Your task to perform on an android device: show emergency info Image 0: 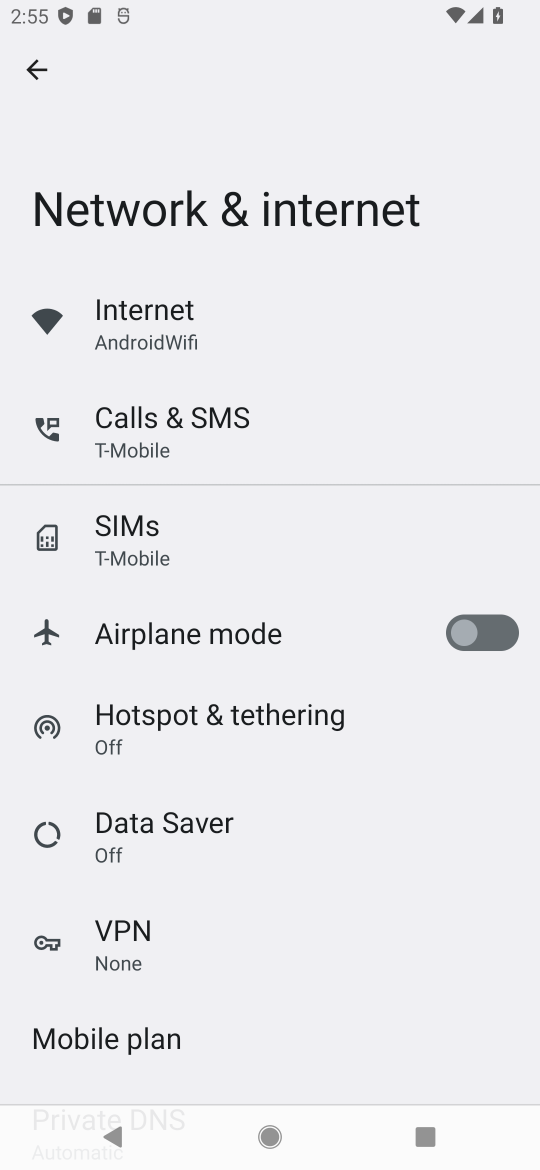
Step 0: click (9, 64)
Your task to perform on an android device: show emergency info Image 1: 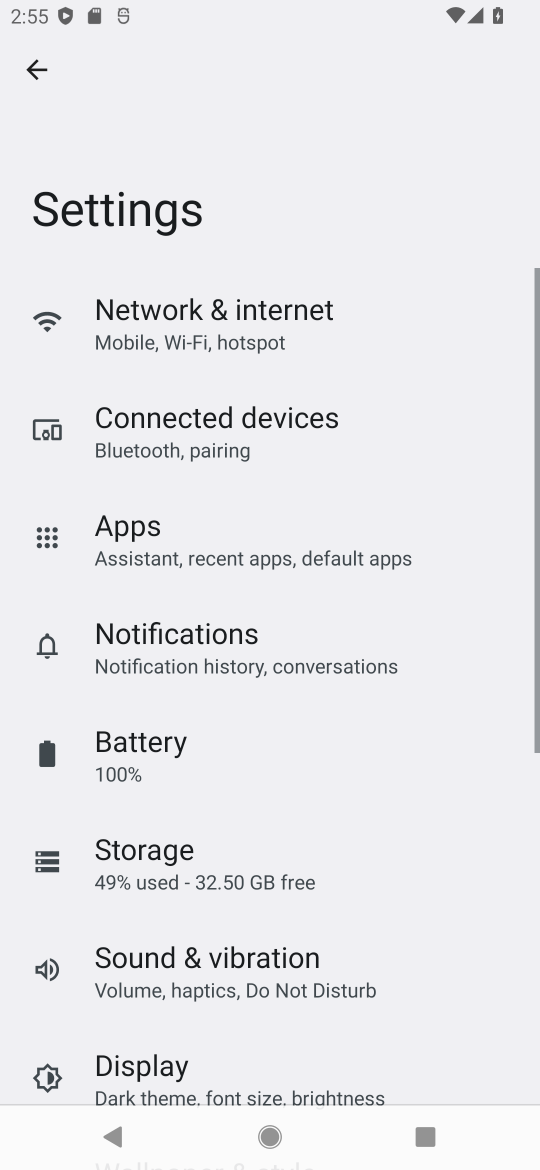
Step 1: press back button
Your task to perform on an android device: show emergency info Image 2: 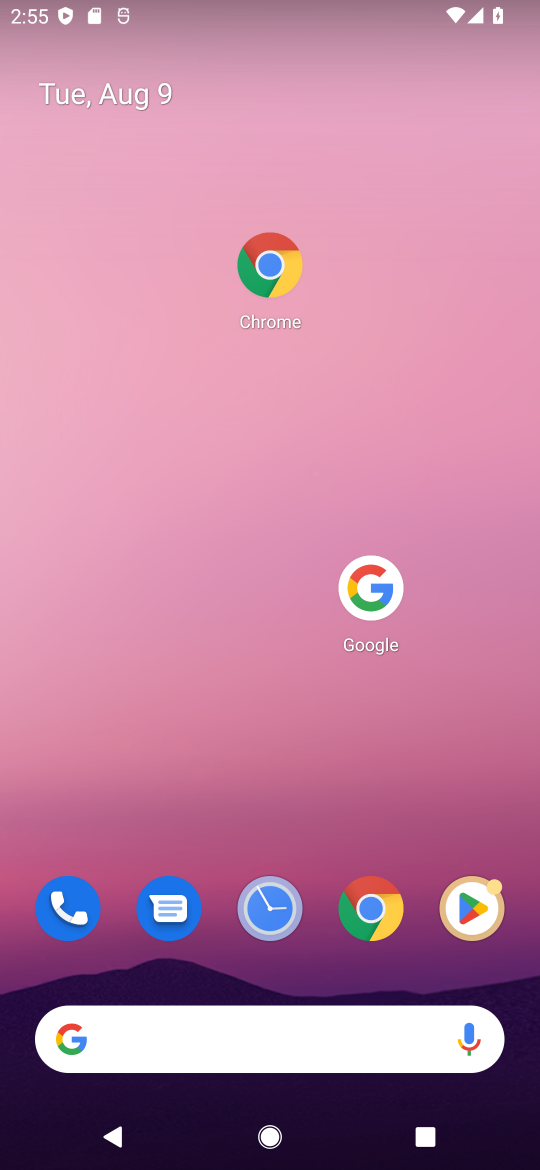
Step 2: drag from (331, 807) to (313, 464)
Your task to perform on an android device: show emergency info Image 3: 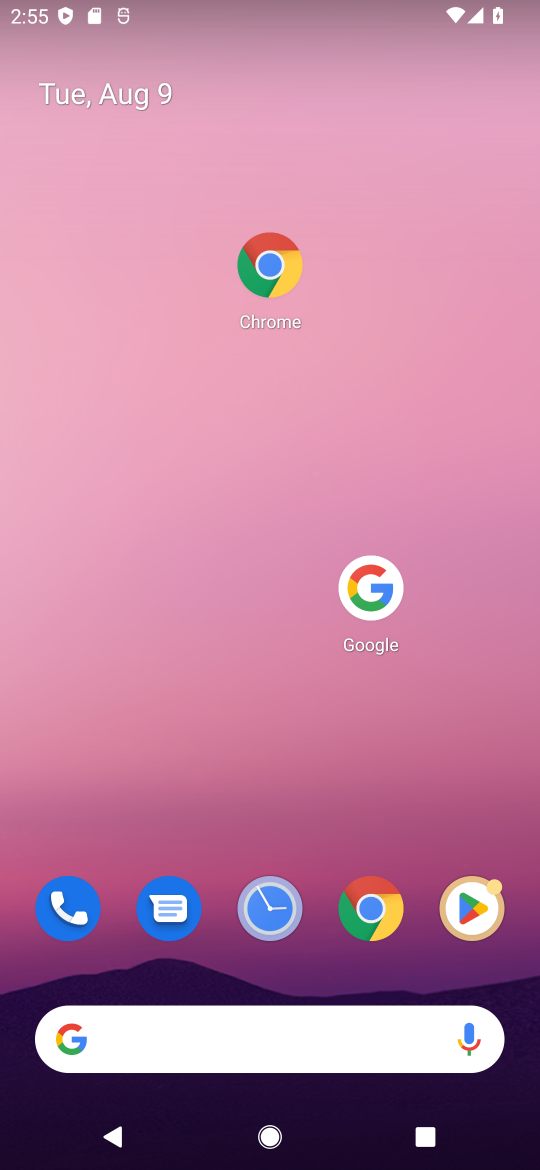
Step 3: drag from (311, 978) to (286, 360)
Your task to perform on an android device: show emergency info Image 4: 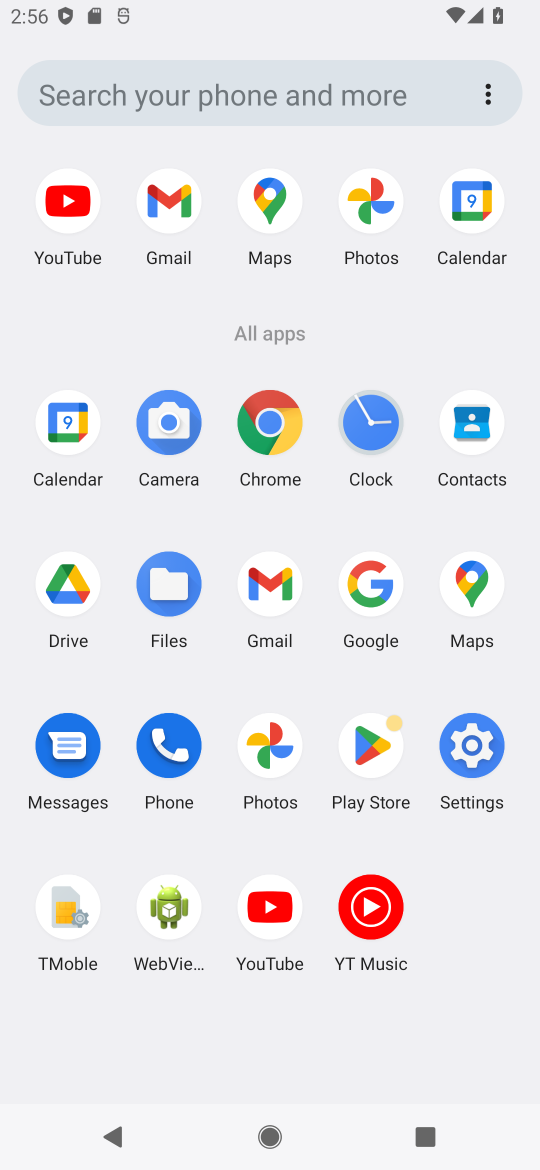
Step 4: drag from (309, 992) to (367, 496)
Your task to perform on an android device: show emergency info Image 5: 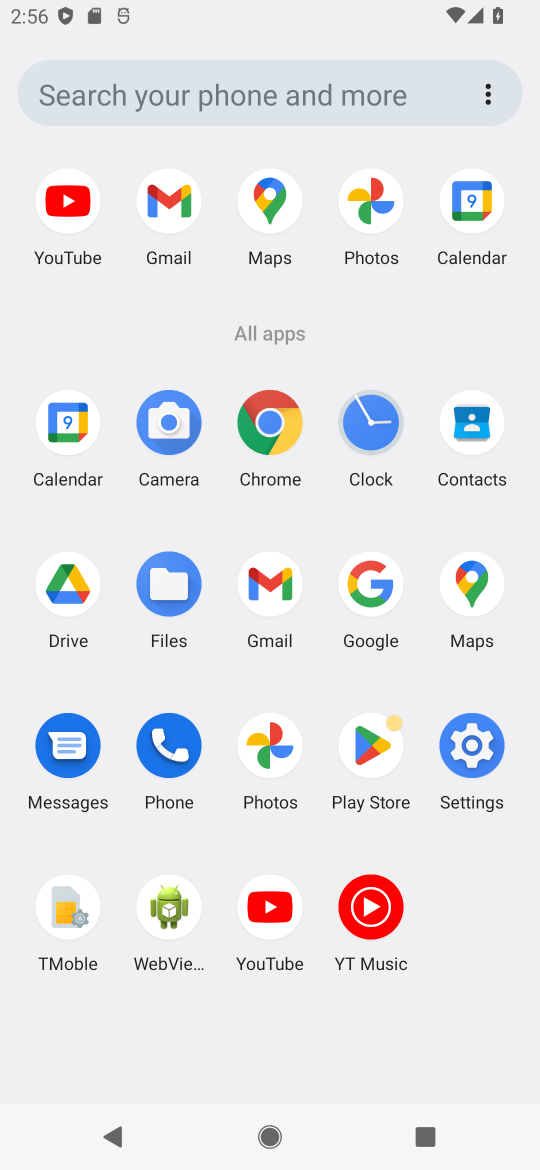
Step 5: drag from (354, 866) to (333, 454)
Your task to perform on an android device: show emergency info Image 6: 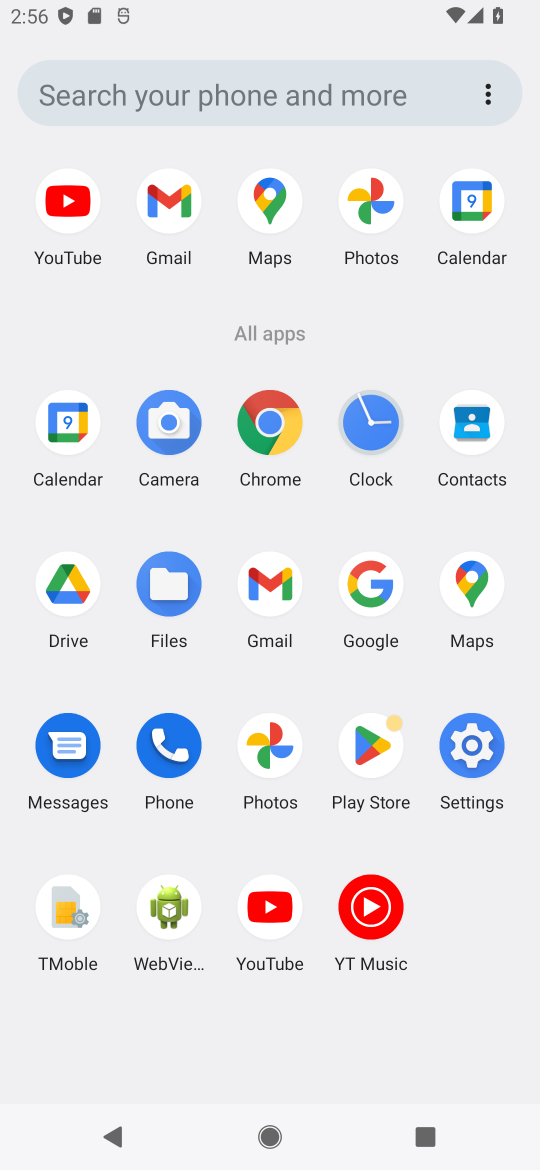
Step 6: click (466, 750)
Your task to perform on an android device: show emergency info Image 7: 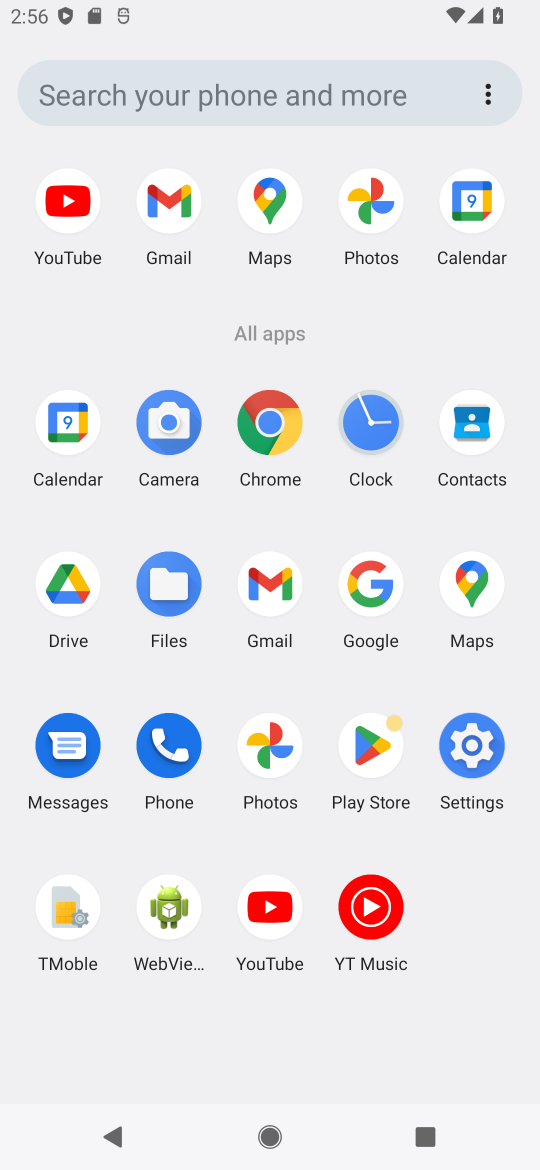
Step 7: click (466, 750)
Your task to perform on an android device: show emergency info Image 8: 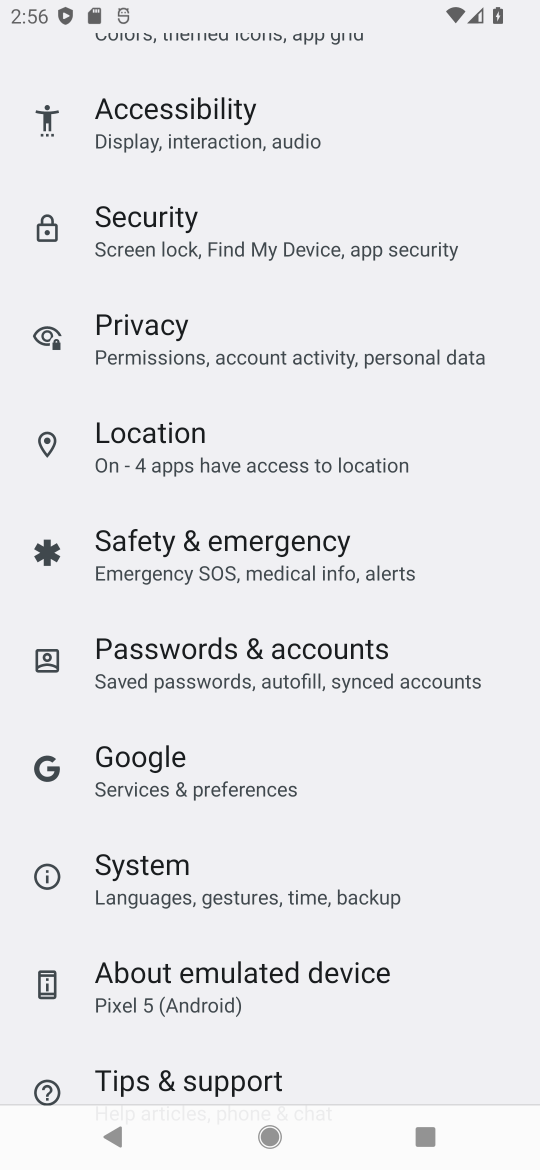
Step 8: drag from (242, 921) to (260, 501)
Your task to perform on an android device: show emergency info Image 9: 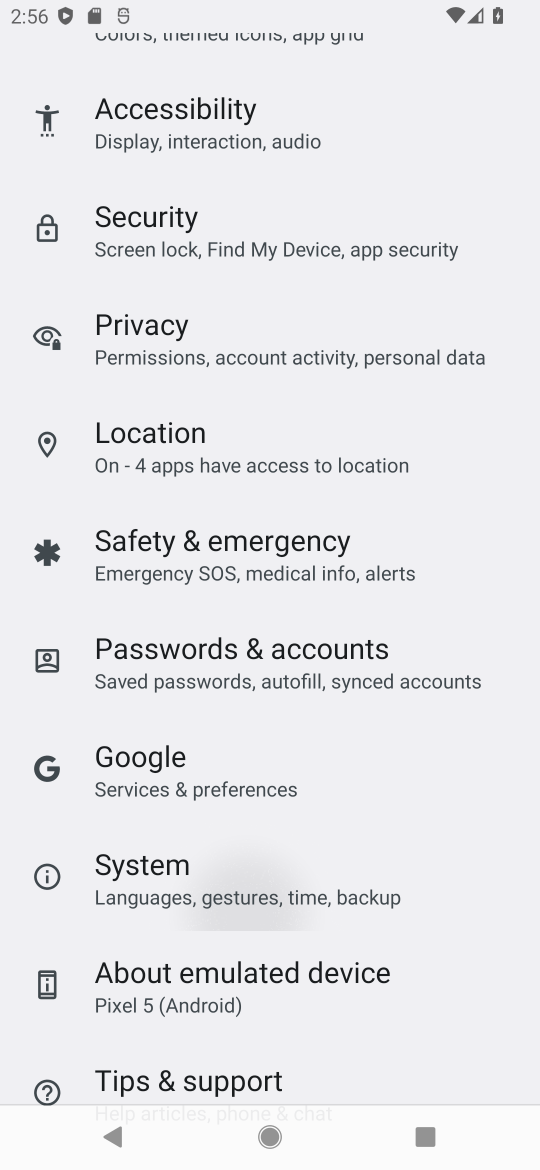
Step 9: drag from (263, 743) to (210, 358)
Your task to perform on an android device: show emergency info Image 10: 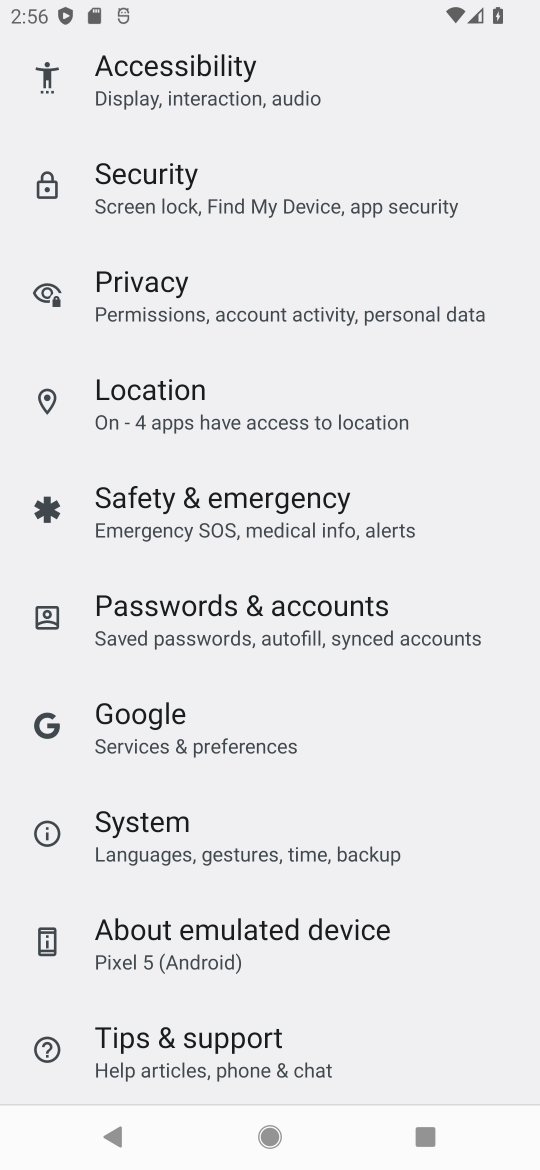
Step 10: click (148, 933)
Your task to perform on an android device: show emergency info Image 11: 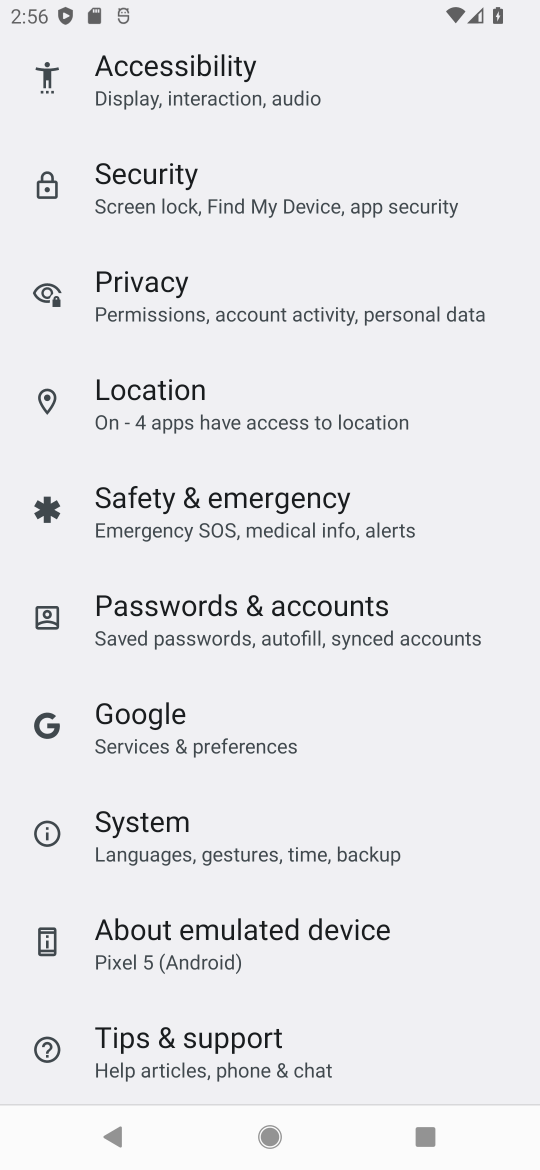
Step 11: click (214, 935)
Your task to perform on an android device: show emergency info Image 12: 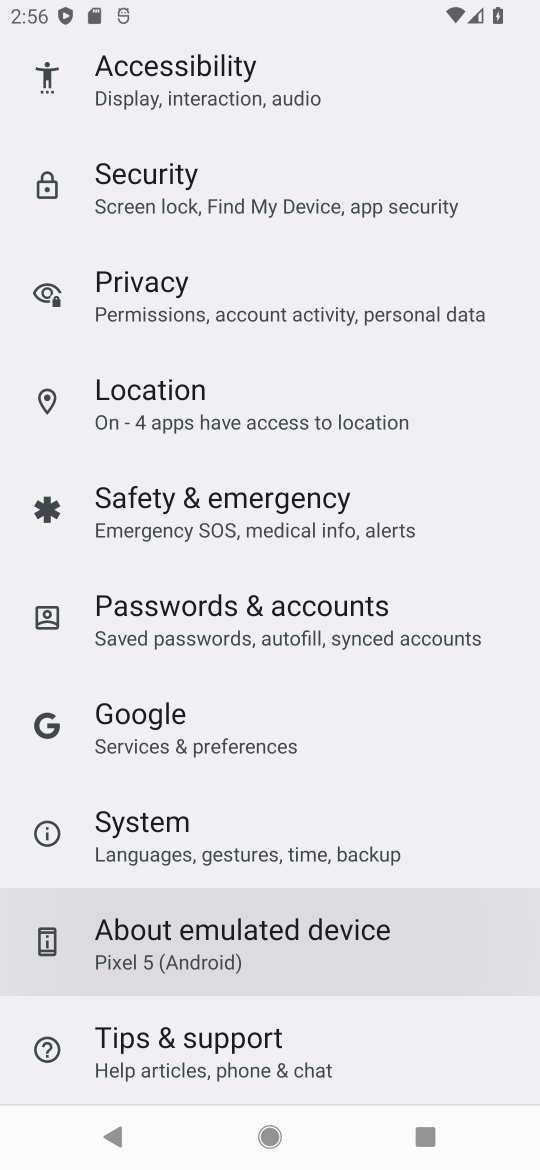
Step 12: click (209, 939)
Your task to perform on an android device: show emergency info Image 13: 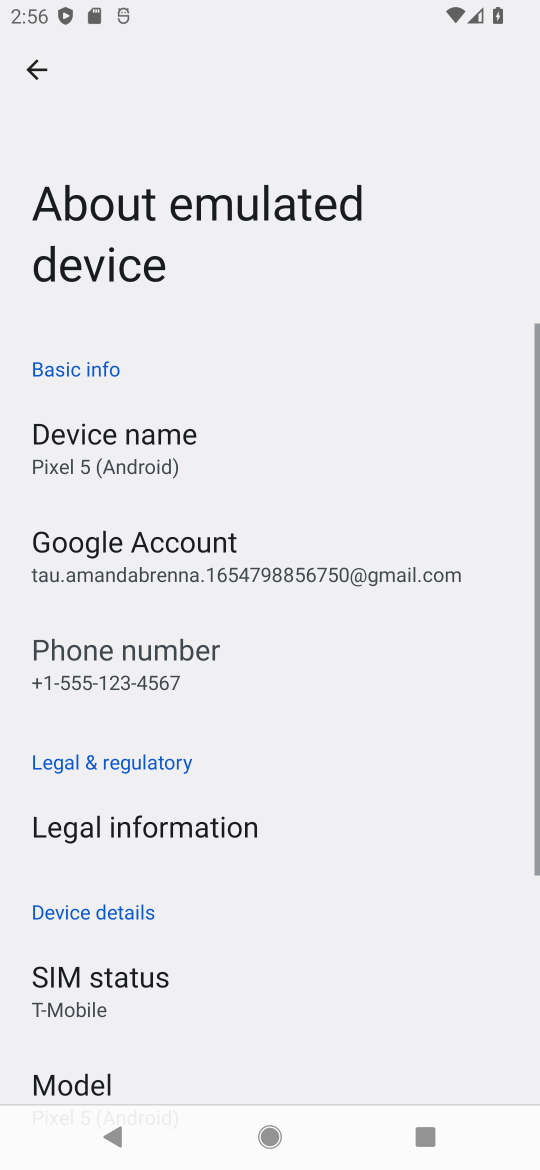
Step 13: drag from (191, 797) to (168, 298)
Your task to perform on an android device: show emergency info Image 14: 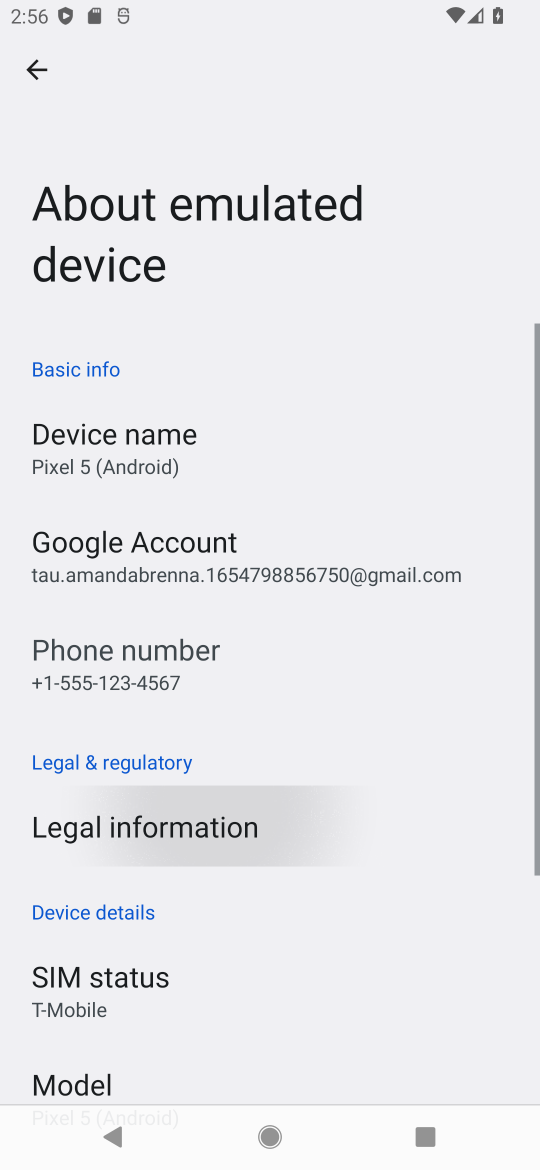
Step 14: drag from (241, 669) to (247, 196)
Your task to perform on an android device: show emergency info Image 15: 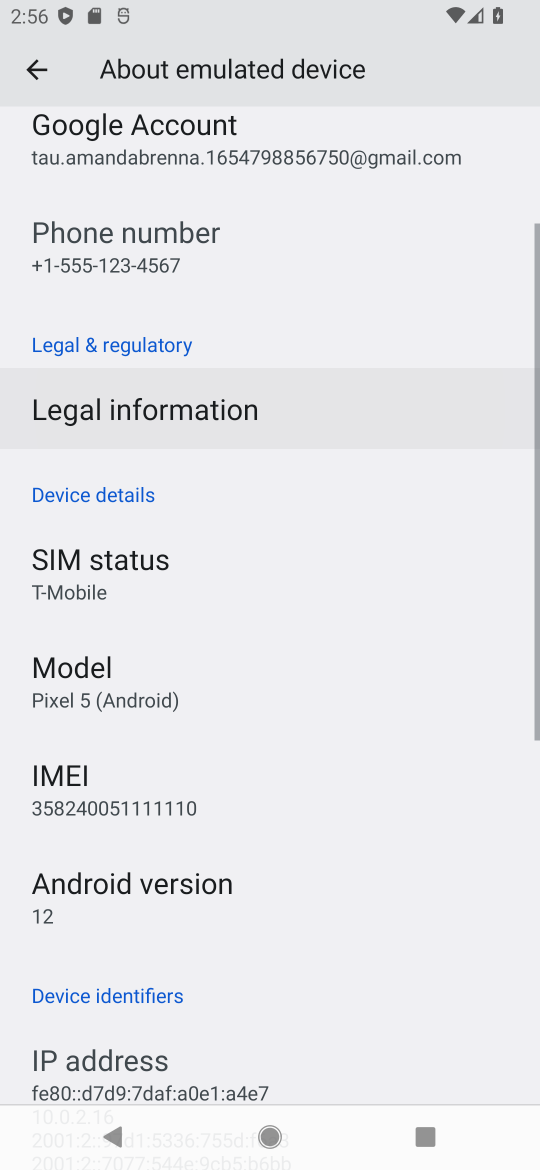
Step 15: click (188, 240)
Your task to perform on an android device: show emergency info Image 16: 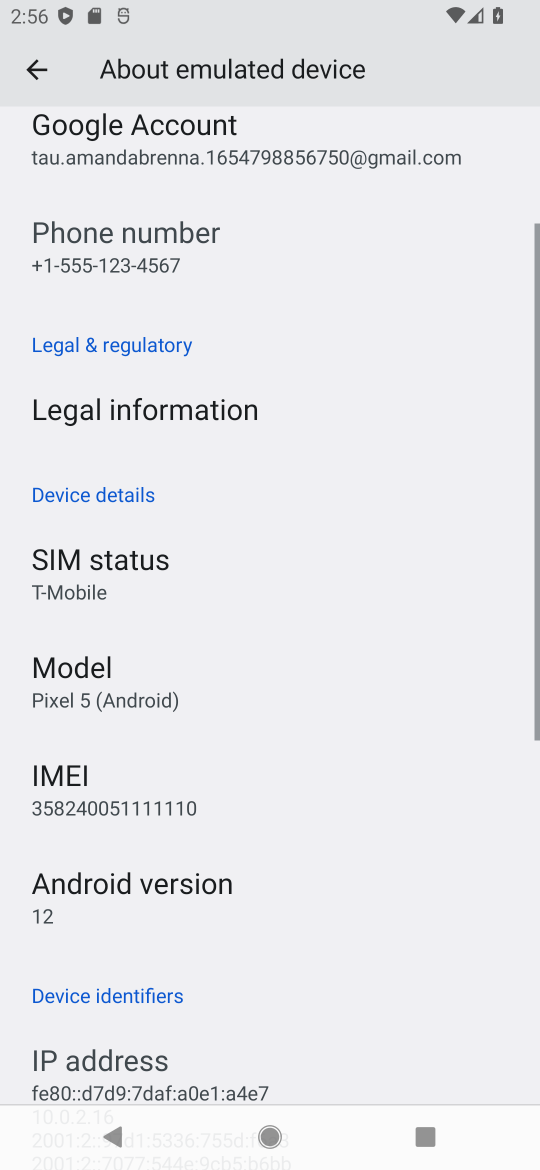
Step 16: task complete